Your task to perform on an android device: Go to accessibility settings Image 0: 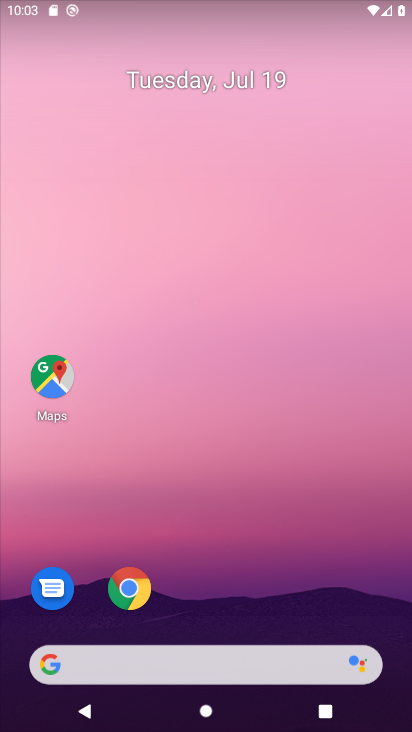
Step 0: drag from (300, 618) to (245, 52)
Your task to perform on an android device: Go to accessibility settings Image 1: 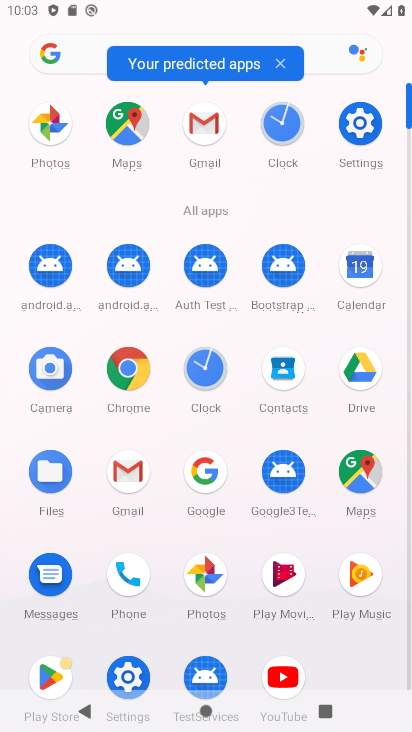
Step 1: click (130, 383)
Your task to perform on an android device: Go to accessibility settings Image 2: 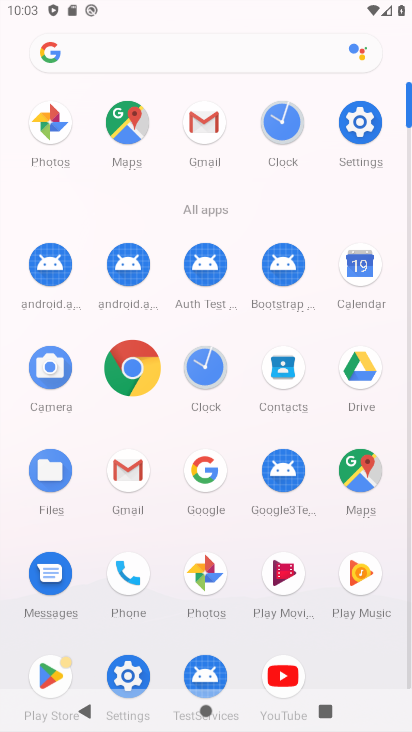
Step 2: press home button
Your task to perform on an android device: Go to accessibility settings Image 3: 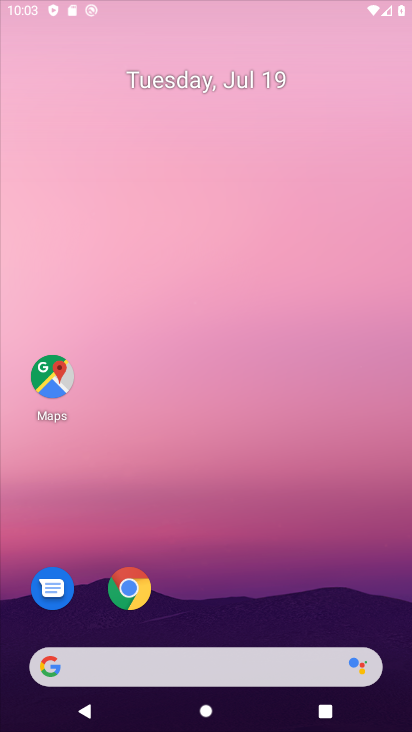
Step 3: drag from (343, 634) to (238, 52)
Your task to perform on an android device: Go to accessibility settings Image 4: 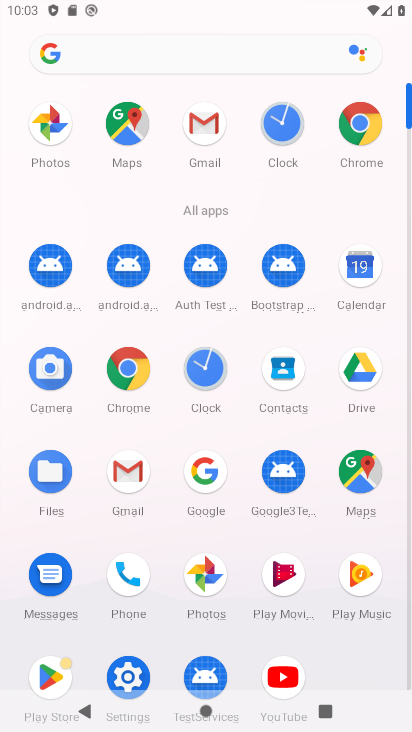
Step 4: click (111, 686)
Your task to perform on an android device: Go to accessibility settings Image 5: 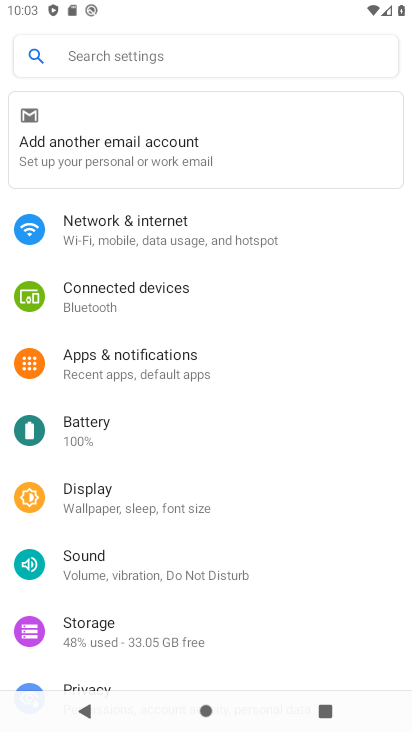
Step 5: drag from (151, 611) to (168, 163)
Your task to perform on an android device: Go to accessibility settings Image 6: 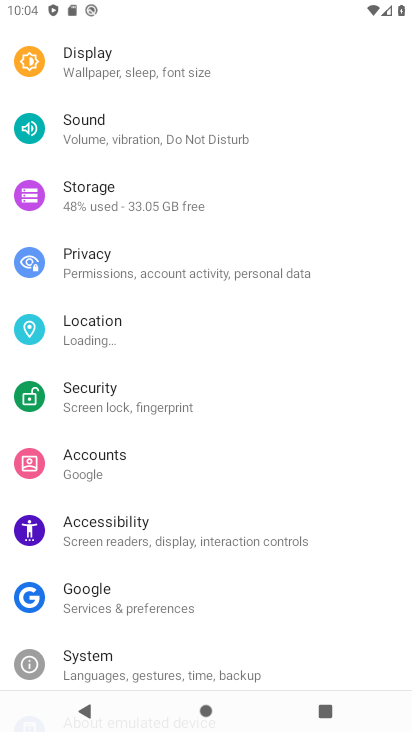
Step 6: click (141, 536)
Your task to perform on an android device: Go to accessibility settings Image 7: 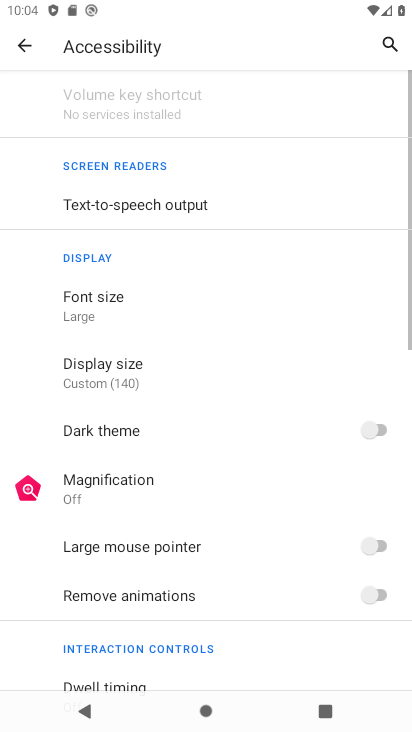
Step 7: task complete